Your task to perform on an android device: Search for seafood restaurants on Google Maps Image 0: 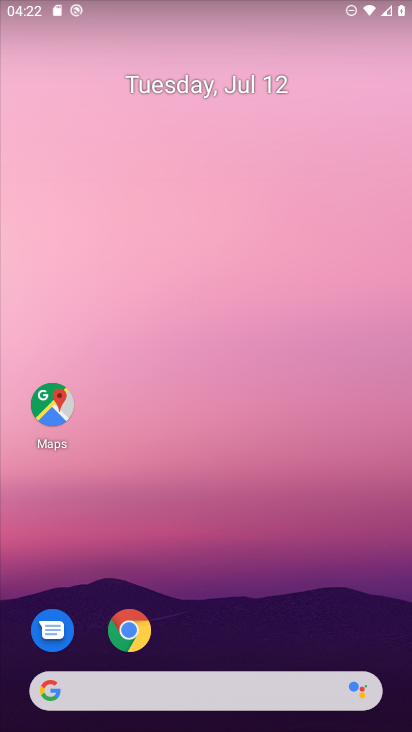
Step 0: click (49, 403)
Your task to perform on an android device: Search for seafood restaurants on Google Maps Image 1: 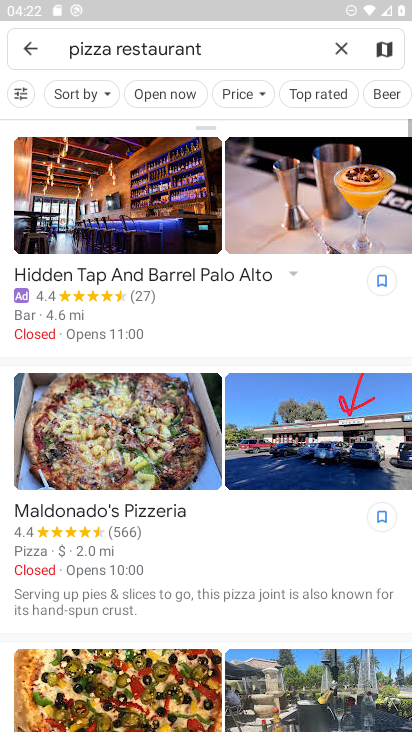
Step 1: click (345, 42)
Your task to perform on an android device: Search for seafood restaurants on Google Maps Image 2: 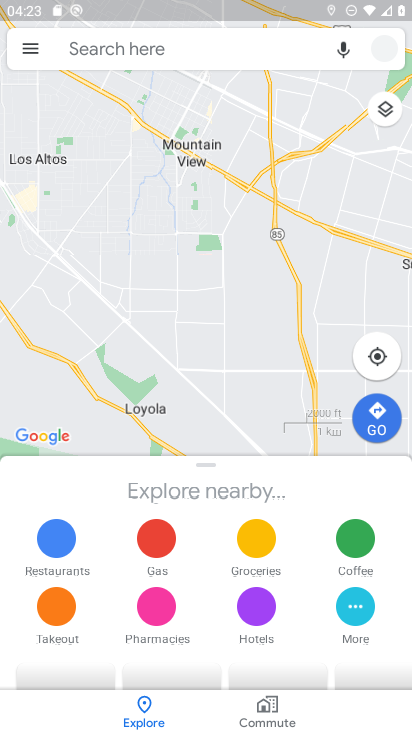
Step 2: click (117, 49)
Your task to perform on an android device: Search for seafood restaurants on Google Maps Image 3: 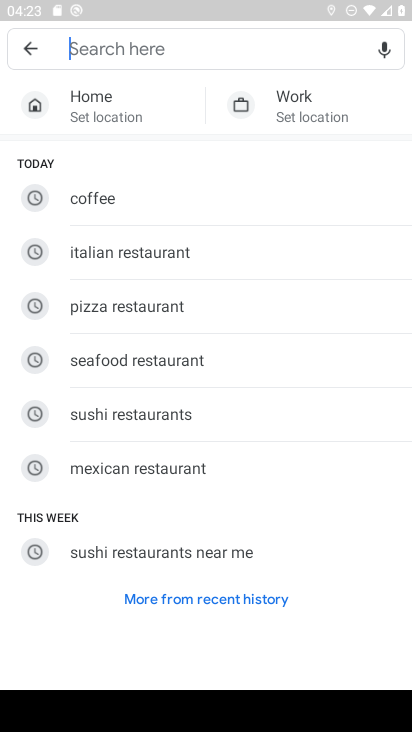
Step 3: type "seafood restaurants"
Your task to perform on an android device: Search for seafood restaurants on Google Maps Image 4: 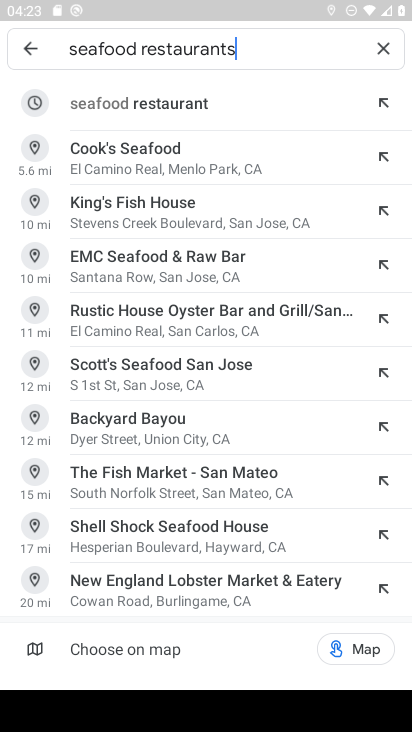
Step 4: click (126, 106)
Your task to perform on an android device: Search for seafood restaurants on Google Maps Image 5: 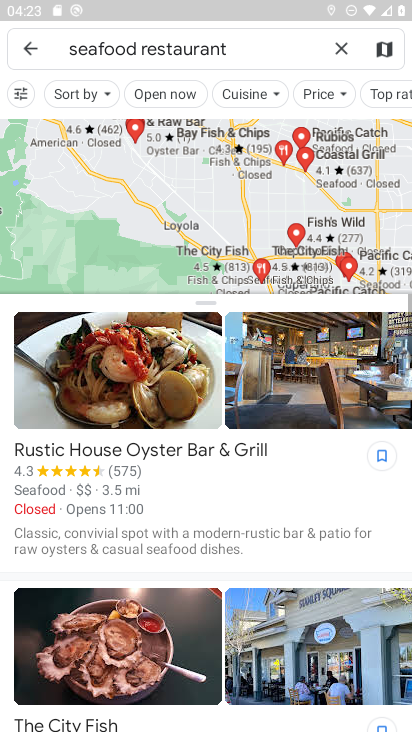
Step 5: task complete